Your task to perform on an android device: find photos in the google photos app Image 0: 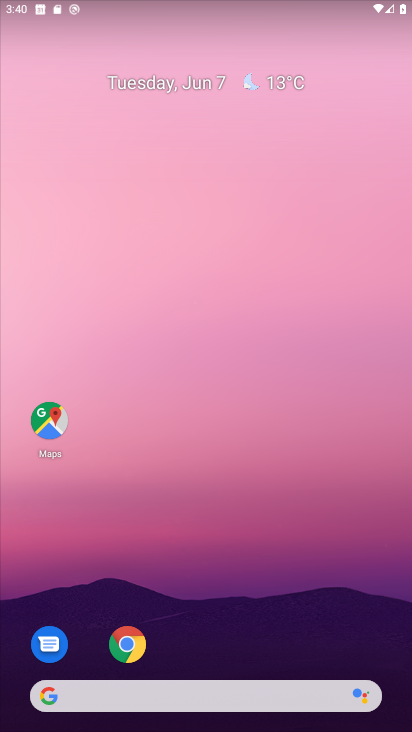
Step 0: drag from (355, 639) to (385, 293)
Your task to perform on an android device: find photos in the google photos app Image 1: 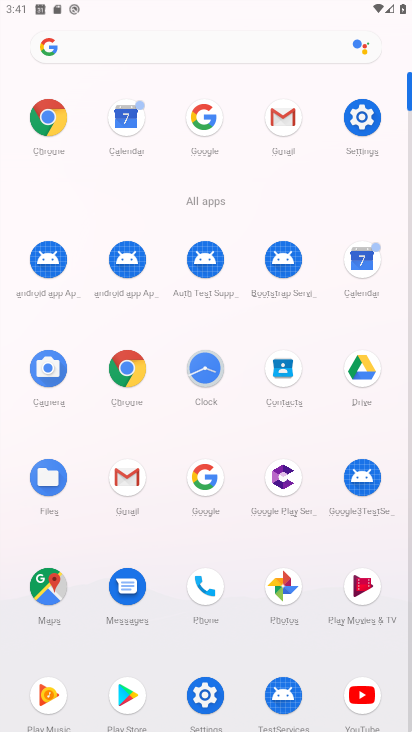
Step 1: click (273, 588)
Your task to perform on an android device: find photos in the google photos app Image 2: 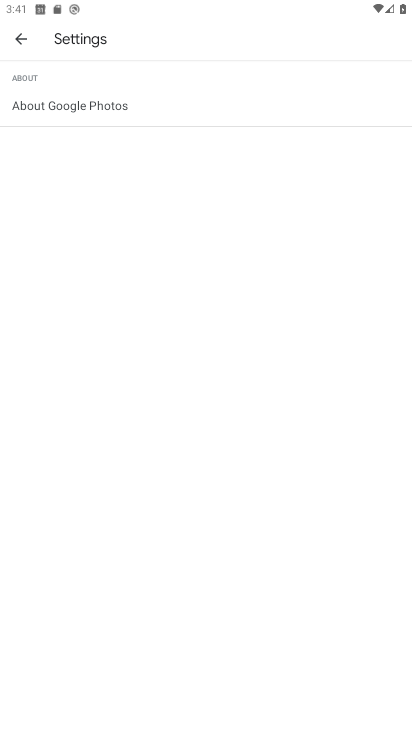
Step 2: press back button
Your task to perform on an android device: find photos in the google photos app Image 3: 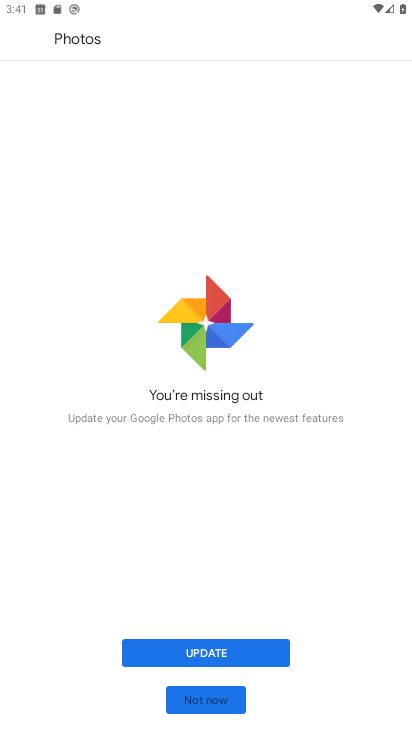
Step 3: click (232, 657)
Your task to perform on an android device: find photos in the google photos app Image 4: 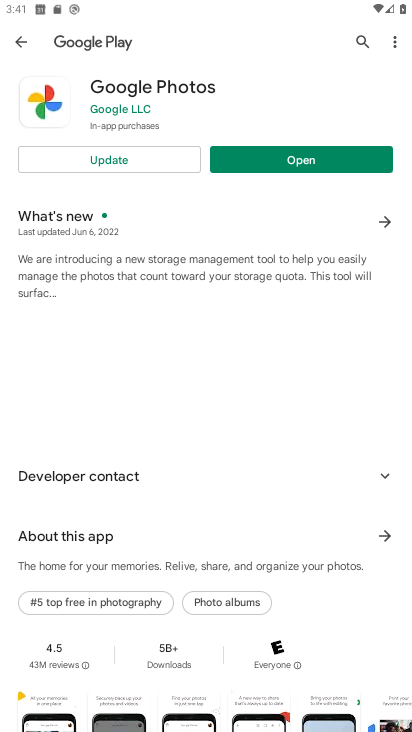
Step 4: click (135, 166)
Your task to perform on an android device: find photos in the google photos app Image 5: 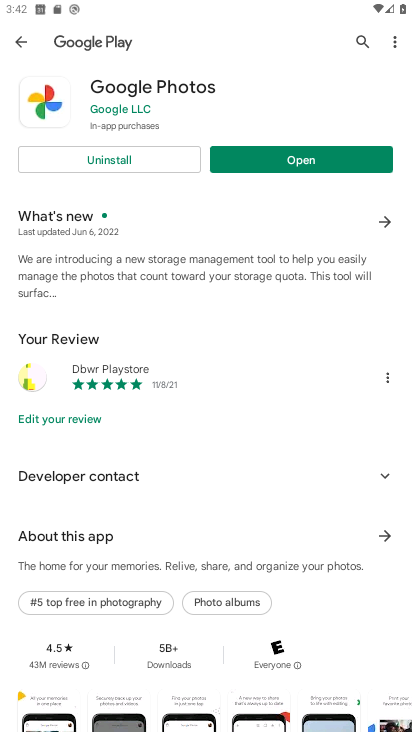
Step 5: click (287, 163)
Your task to perform on an android device: find photos in the google photos app Image 6: 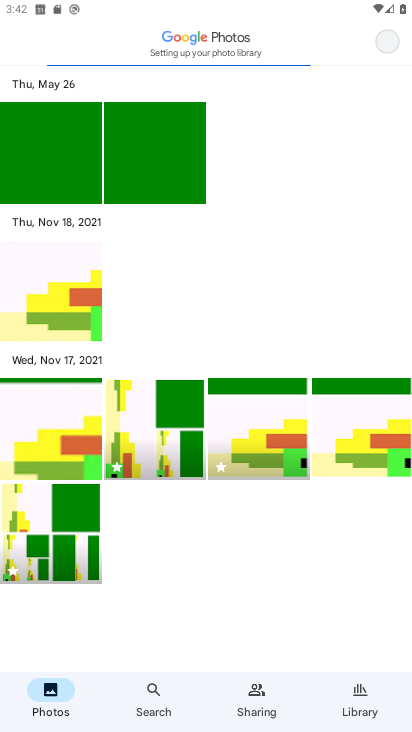
Step 6: click (66, 182)
Your task to perform on an android device: find photos in the google photos app Image 7: 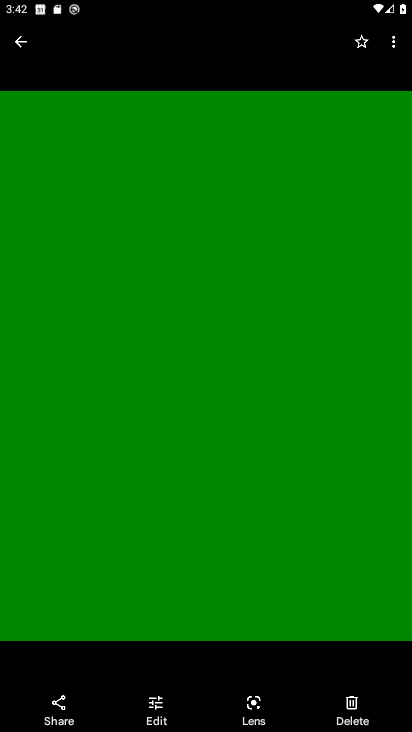
Step 7: task complete